Your task to perform on an android device: open app "DuckDuckGo Privacy Browser" (install if not already installed) and go to login screen Image 0: 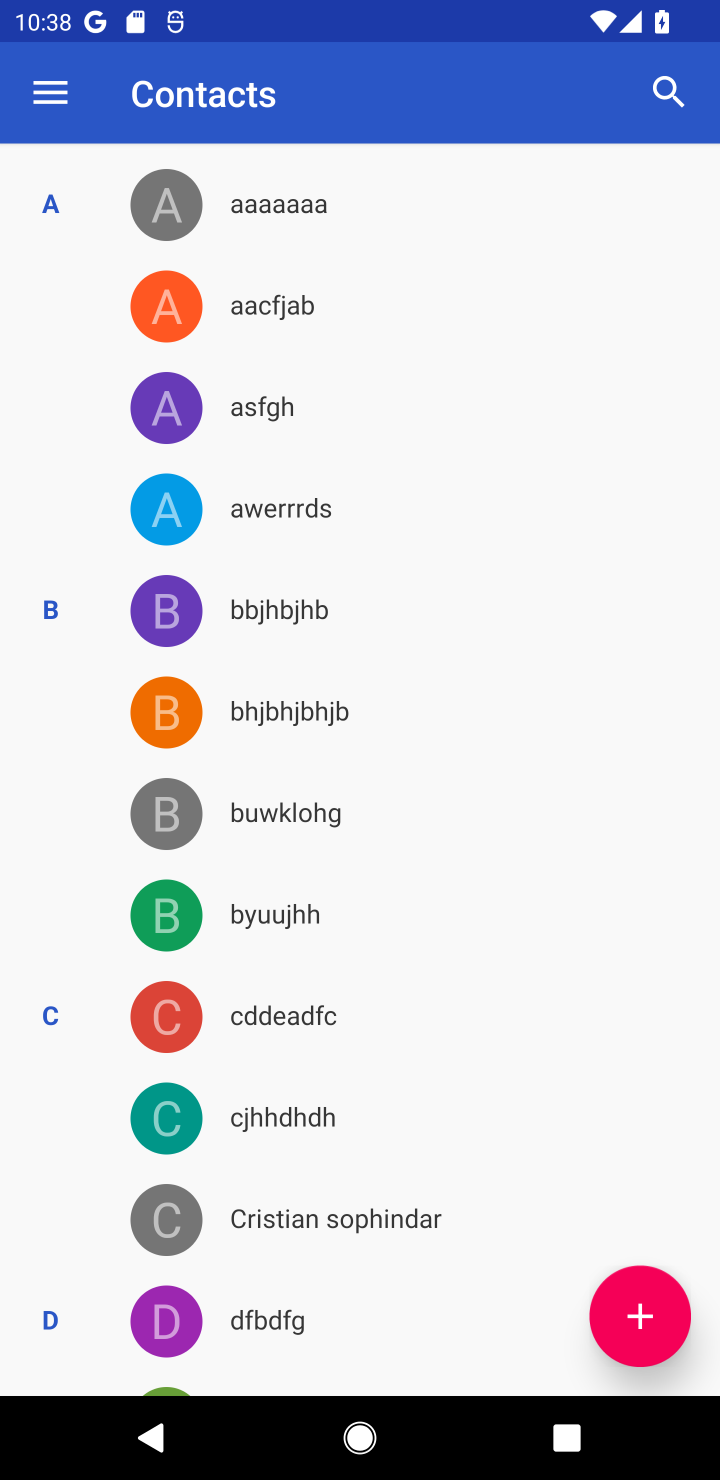
Step 0: press back button
Your task to perform on an android device: open app "DuckDuckGo Privacy Browser" (install if not already installed) and go to login screen Image 1: 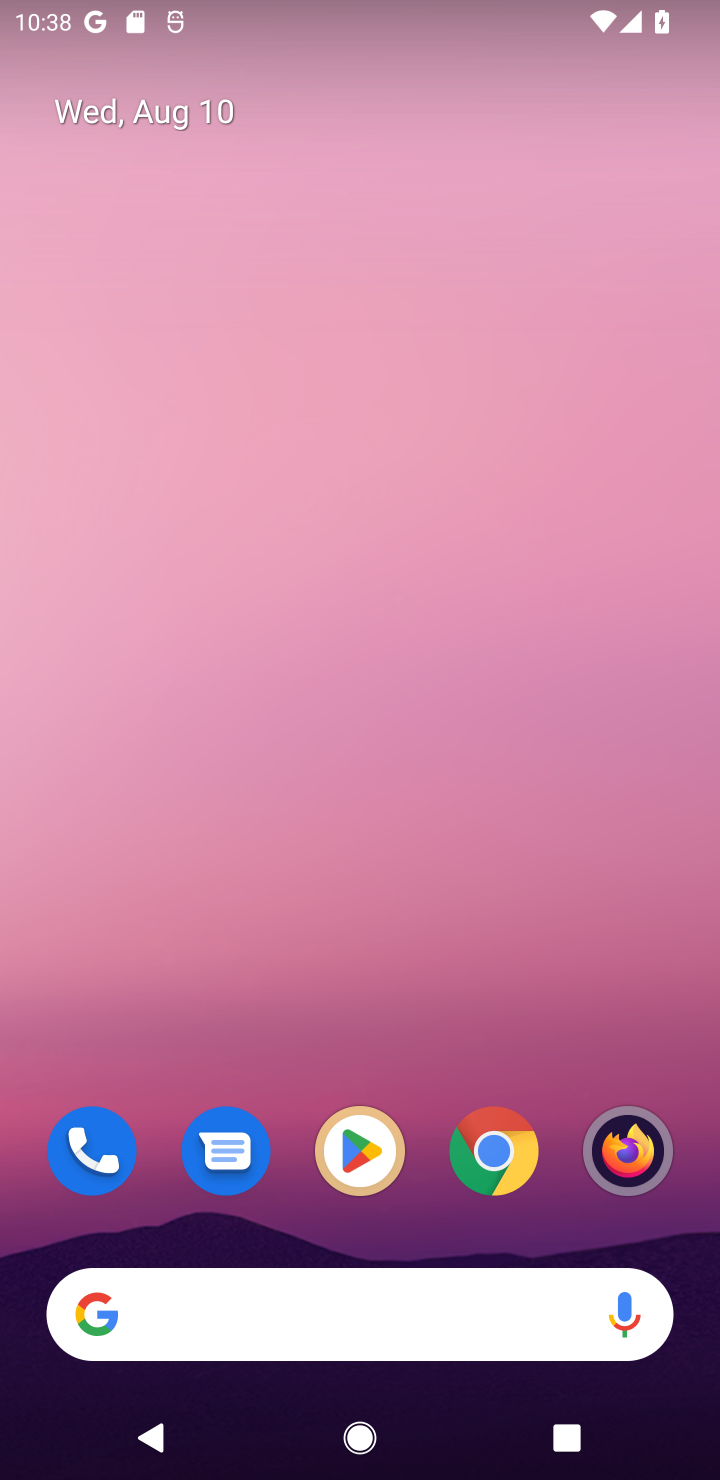
Step 1: click (374, 1154)
Your task to perform on an android device: open app "DuckDuckGo Privacy Browser" (install if not already installed) and go to login screen Image 2: 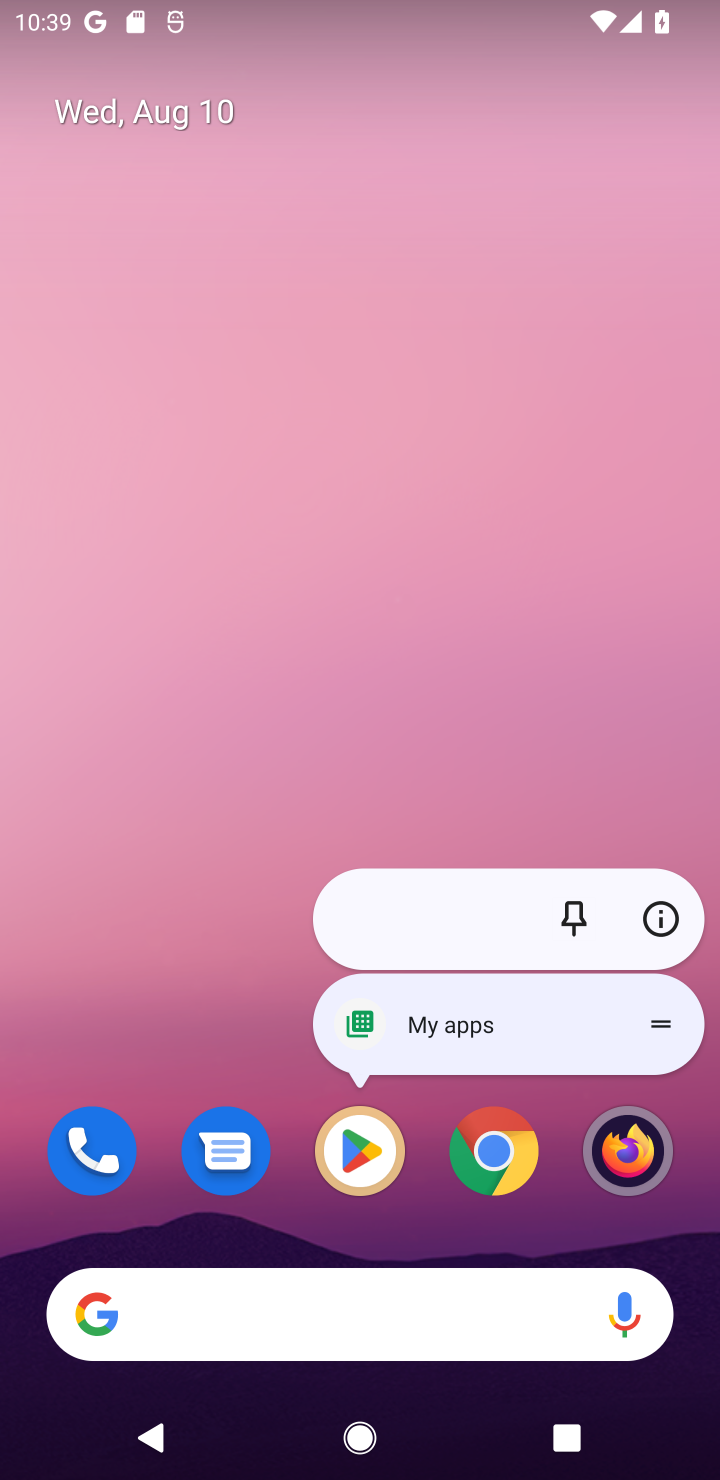
Step 2: click (363, 1118)
Your task to perform on an android device: open app "DuckDuckGo Privacy Browser" (install if not already installed) and go to login screen Image 3: 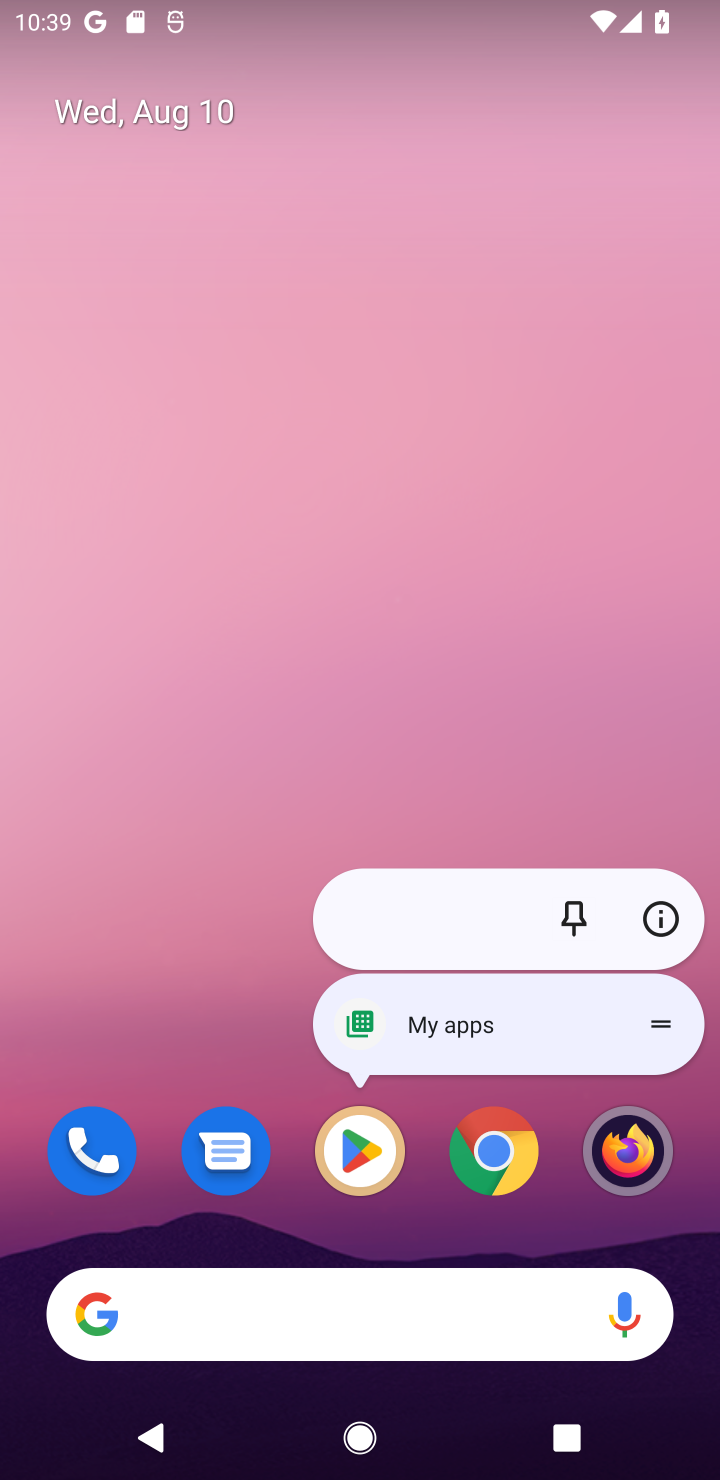
Step 3: click (373, 1157)
Your task to perform on an android device: open app "DuckDuckGo Privacy Browser" (install if not already installed) and go to login screen Image 4: 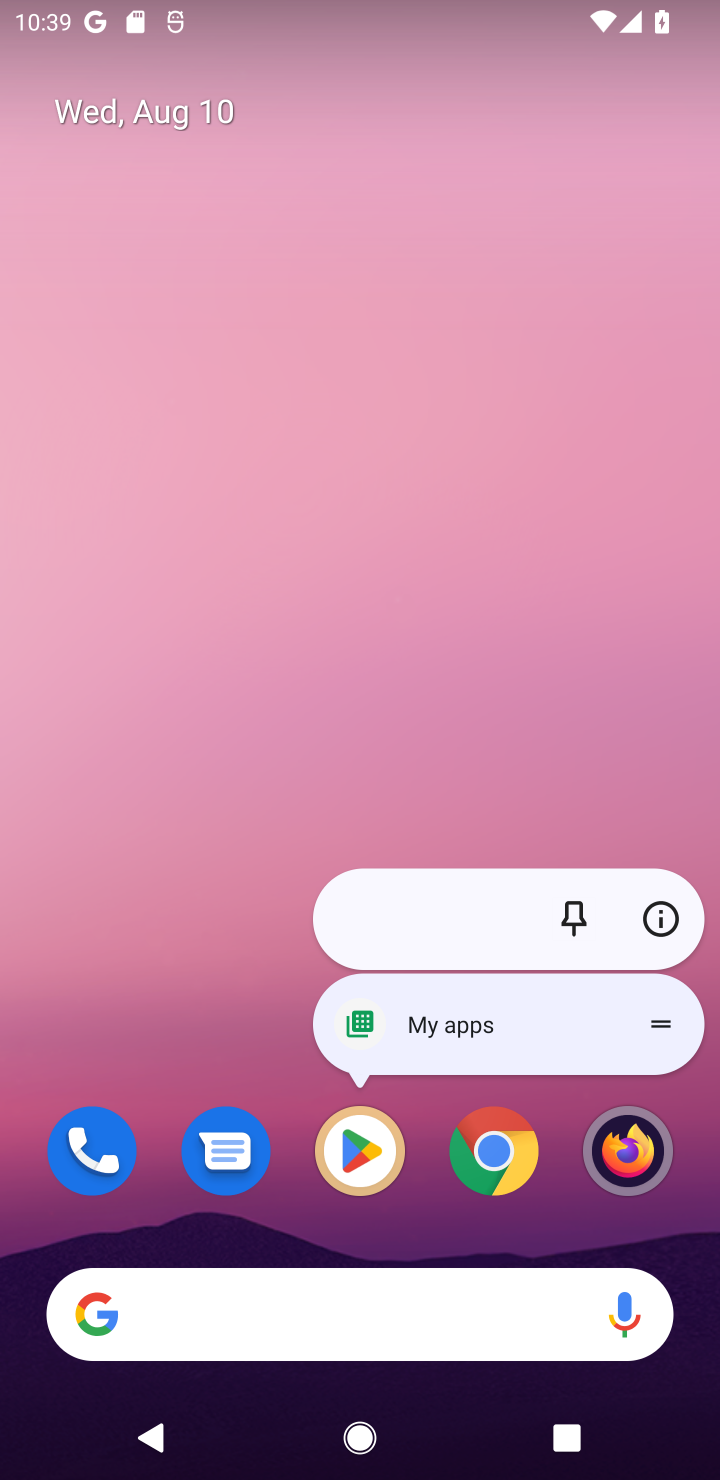
Step 4: click (365, 1166)
Your task to perform on an android device: open app "DuckDuckGo Privacy Browser" (install if not already installed) and go to login screen Image 5: 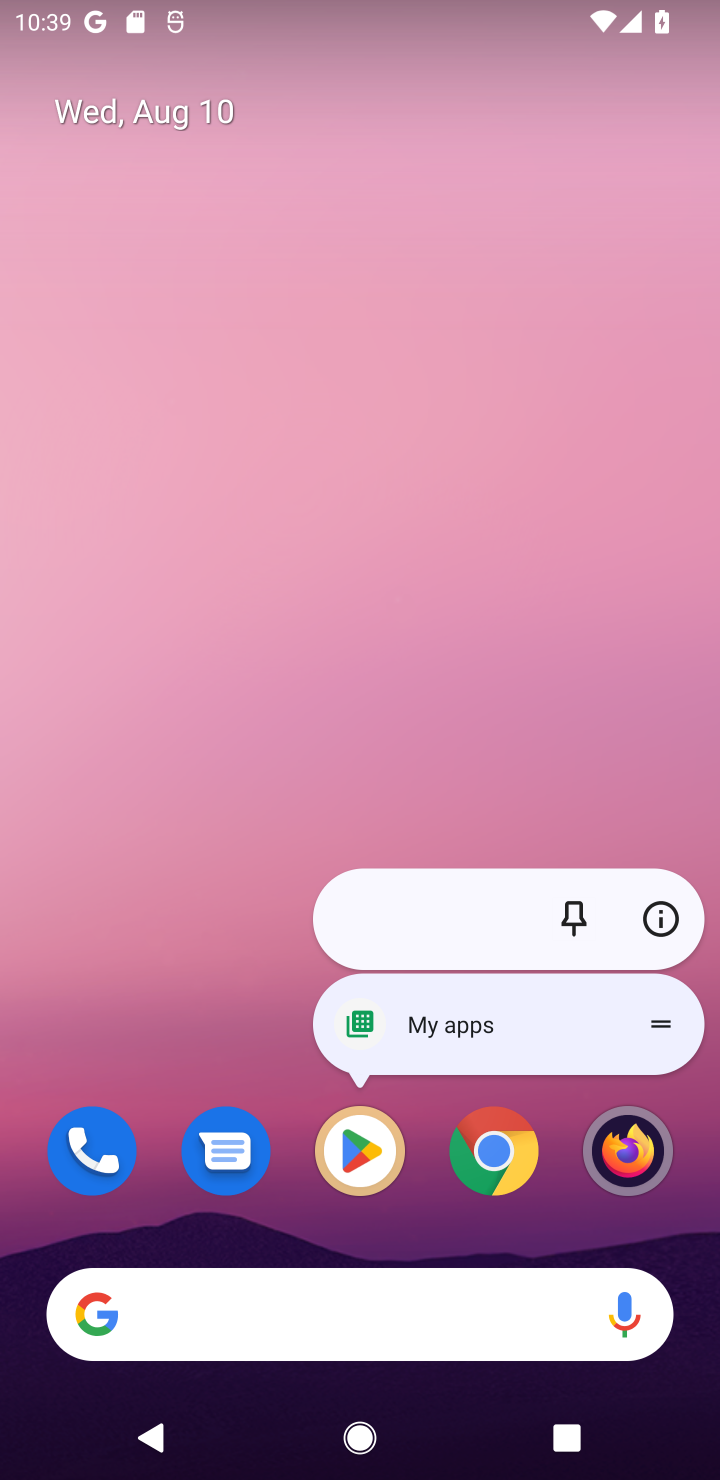
Step 5: click (362, 1156)
Your task to perform on an android device: open app "DuckDuckGo Privacy Browser" (install if not already installed) and go to login screen Image 6: 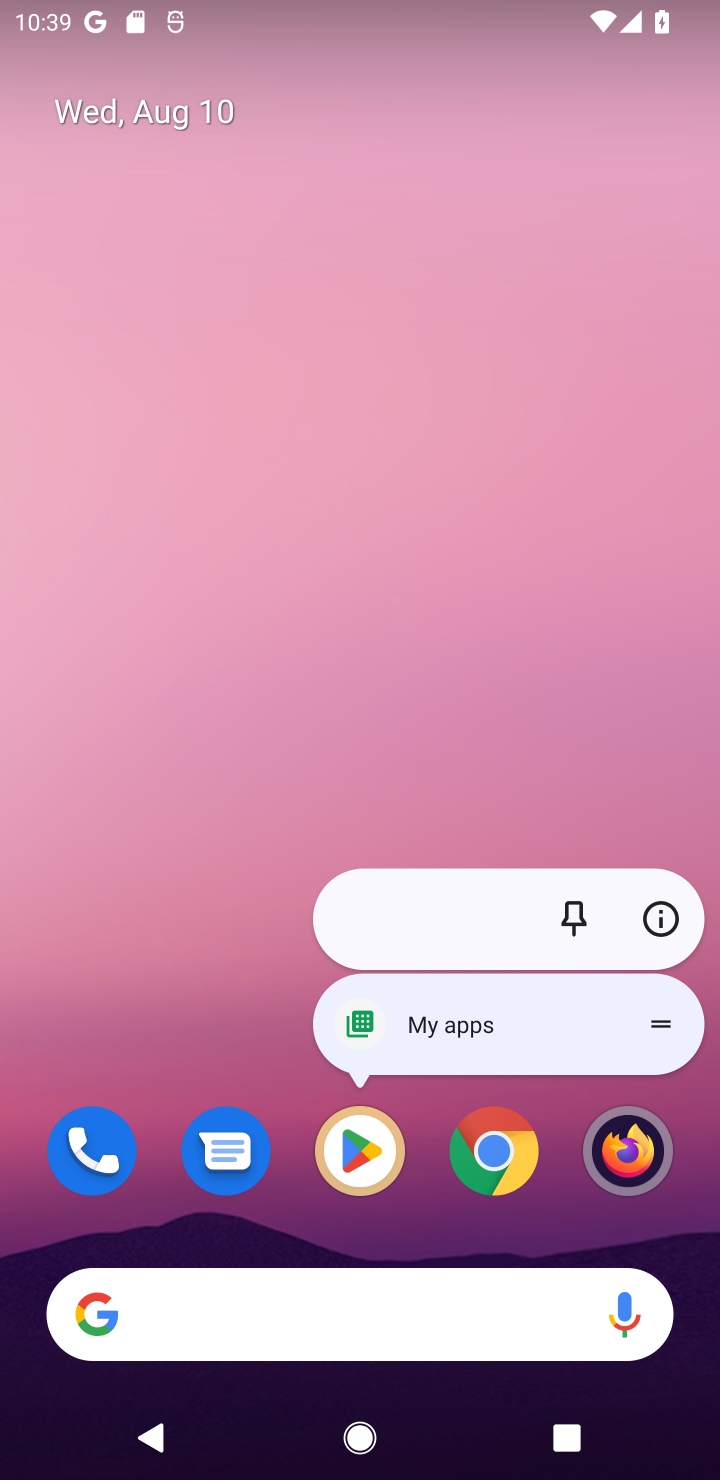
Step 6: click (362, 1148)
Your task to perform on an android device: open app "DuckDuckGo Privacy Browser" (install if not already installed) and go to login screen Image 7: 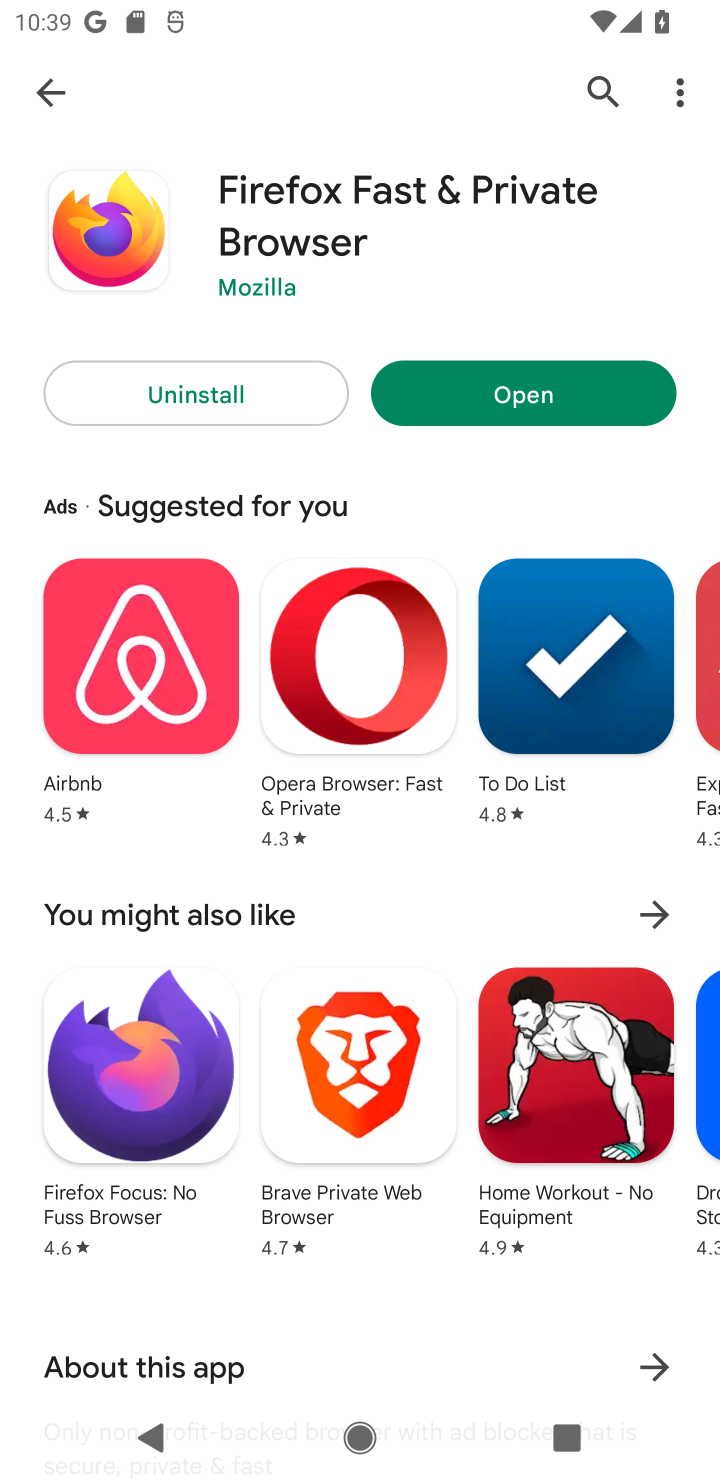
Step 7: click (606, 79)
Your task to perform on an android device: open app "DuckDuckGo Privacy Browser" (install if not already installed) and go to login screen Image 8: 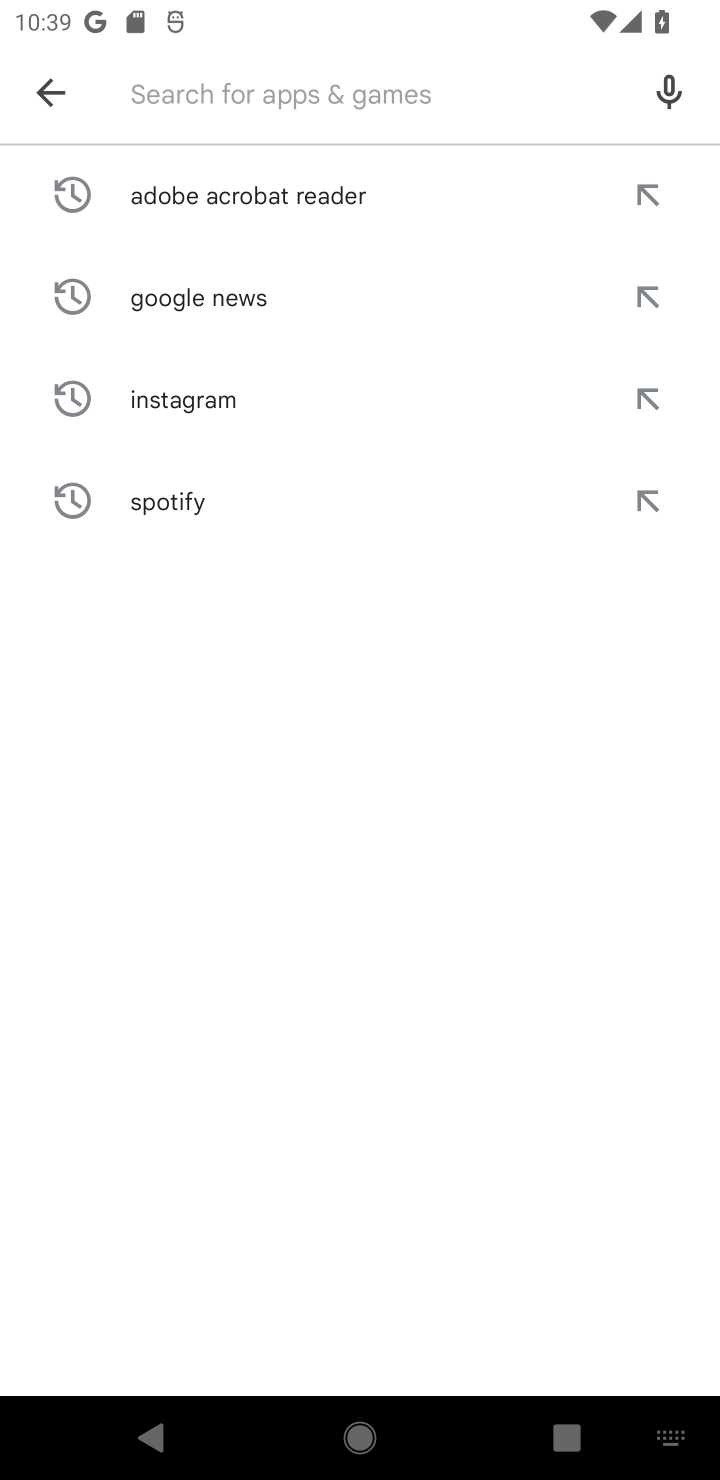
Step 8: click (256, 104)
Your task to perform on an android device: open app "DuckDuckGo Privacy Browser" (install if not already installed) and go to login screen Image 9: 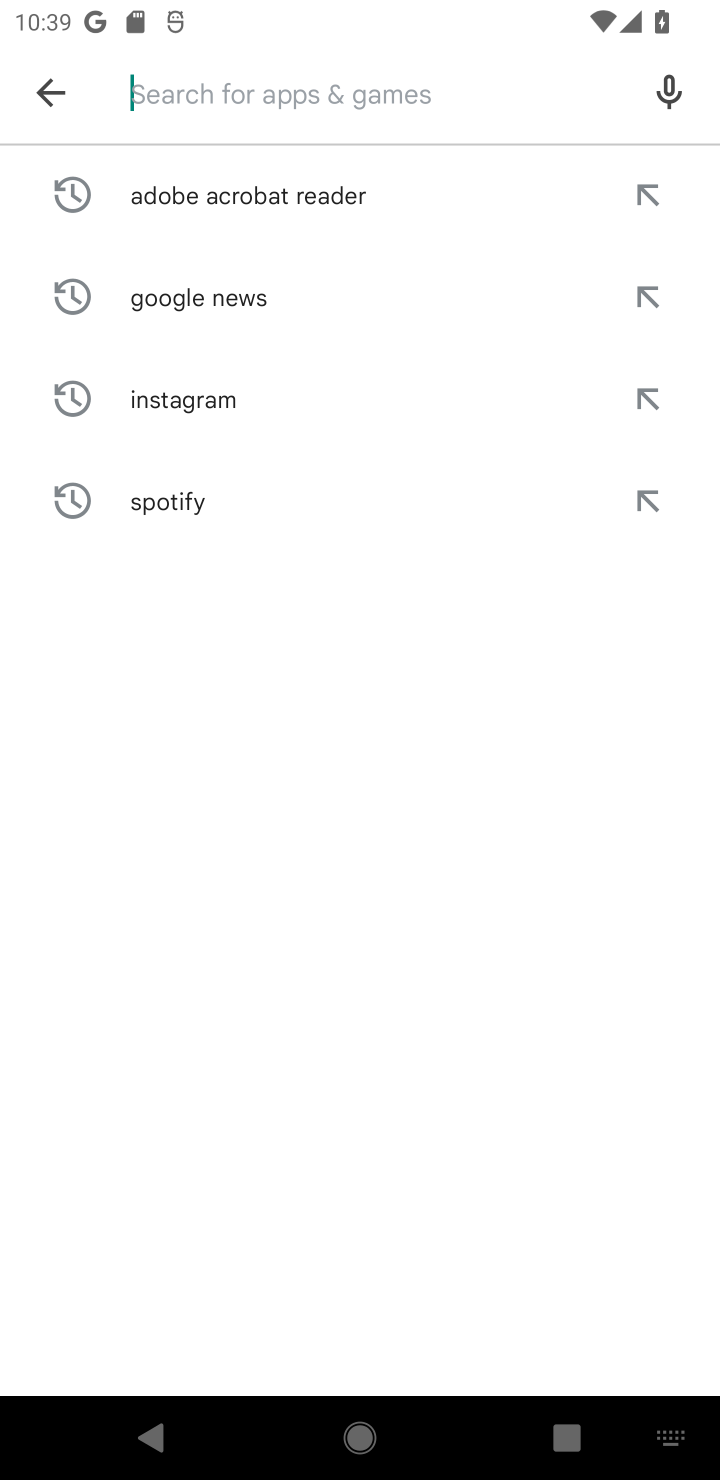
Step 9: type "DuckDuckGo Privacy Browse"
Your task to perform on an android device: open app "DuckDuckGo Privacy Browser" (install if not already installed) and go to login screen Image 10: 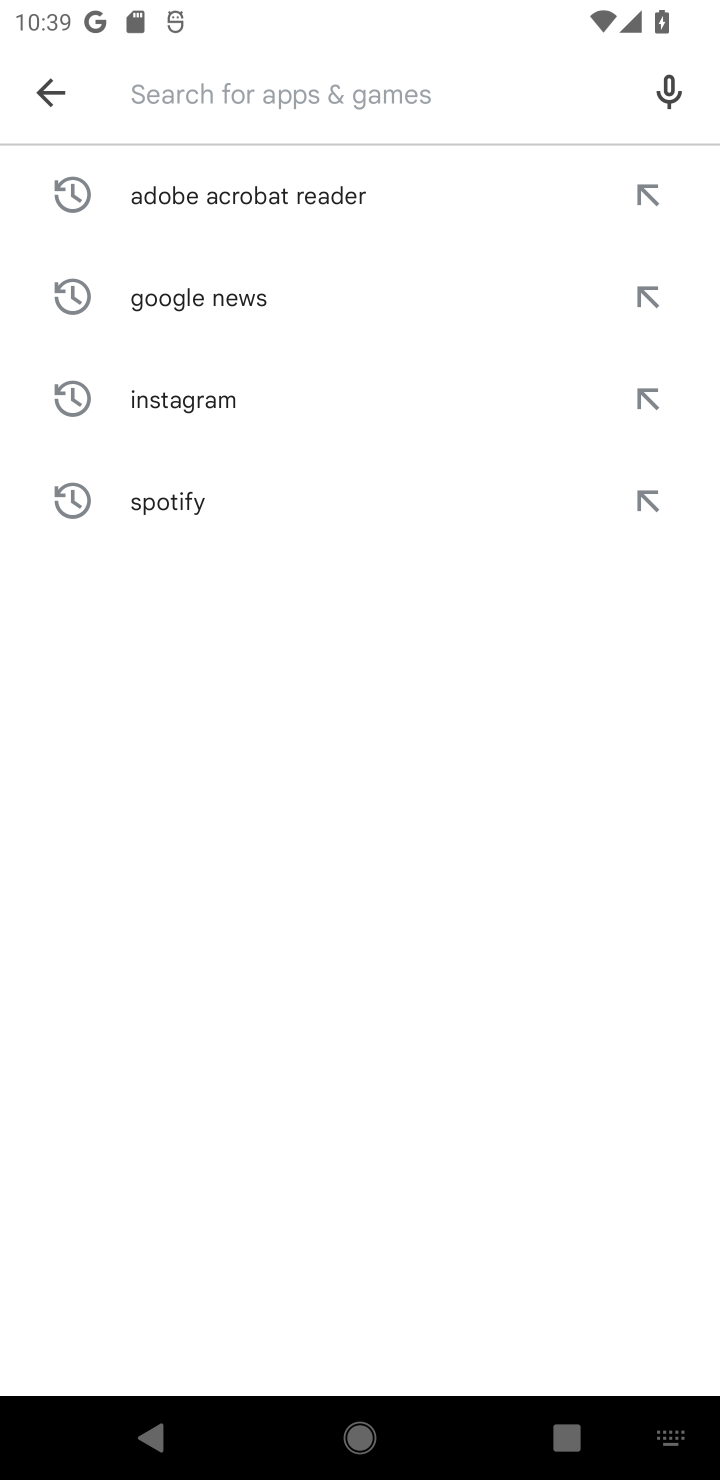
Step 10: click (346, 836)
Your task to perform on an android device: open app "DuckDuckGo Privacy Browser" (install if not already installed) and go to login screen Image 11: 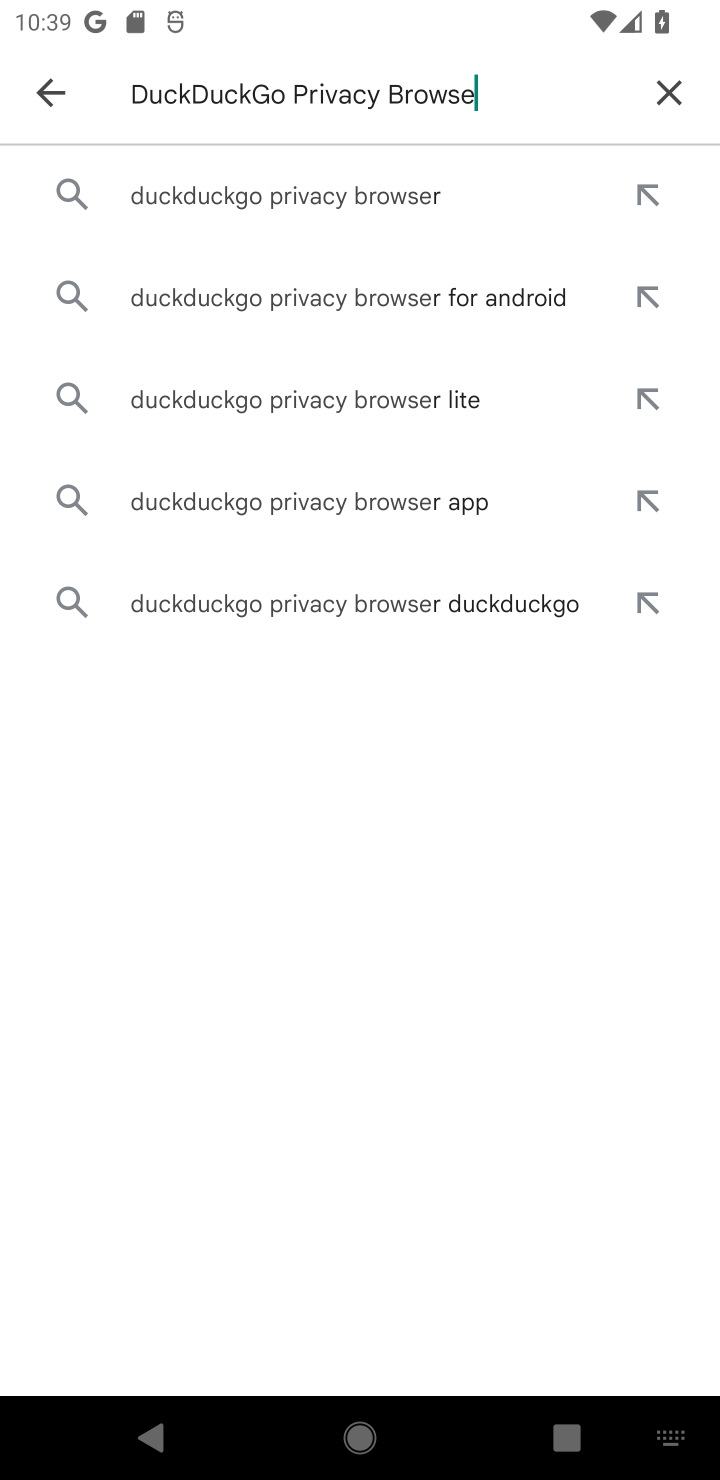
Step 11: click (362, 179)
Your task to perform on an android device: open app "DuckDuckGo Privacy Browser" (install if not already installed) and go to login screen Image 12: 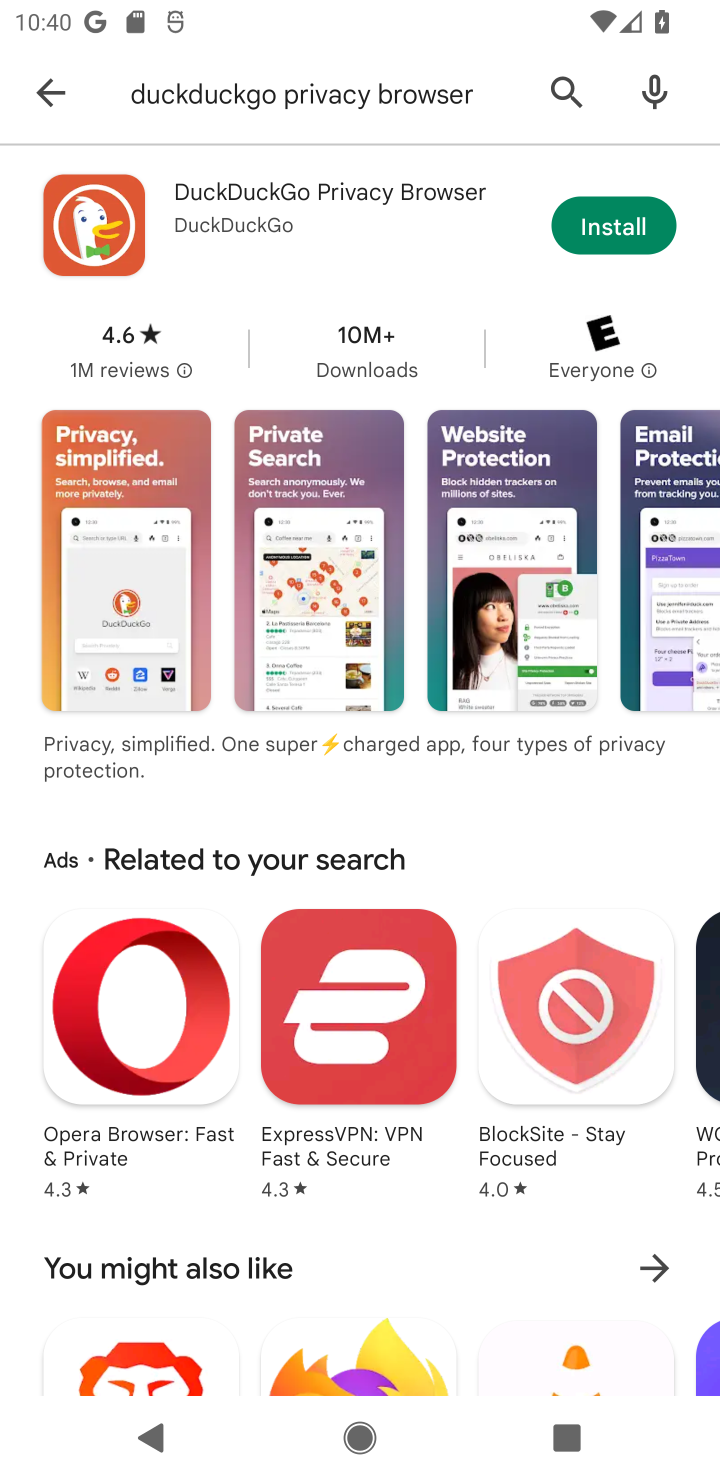
Step 12: click (587, 217)
Your task to perform on an android device: open app "DuckDuckGo Privacy Browser" (install if not already installed) and go to login screen Image 13: 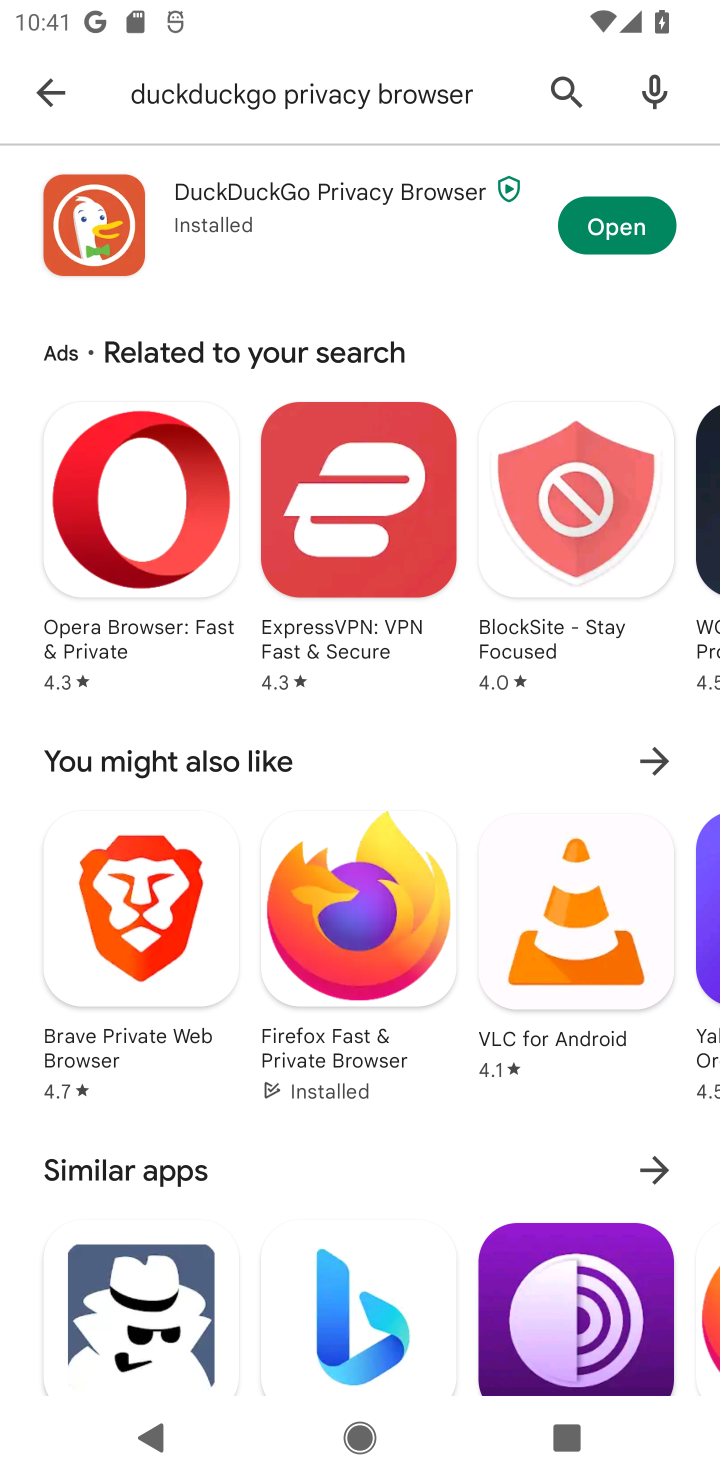
Step 13: click (666, 222)
Your task to perform on an android device: open app "DuckDuckGo Privacy Browser" (install if not already installed) and go to login screen Image 14: 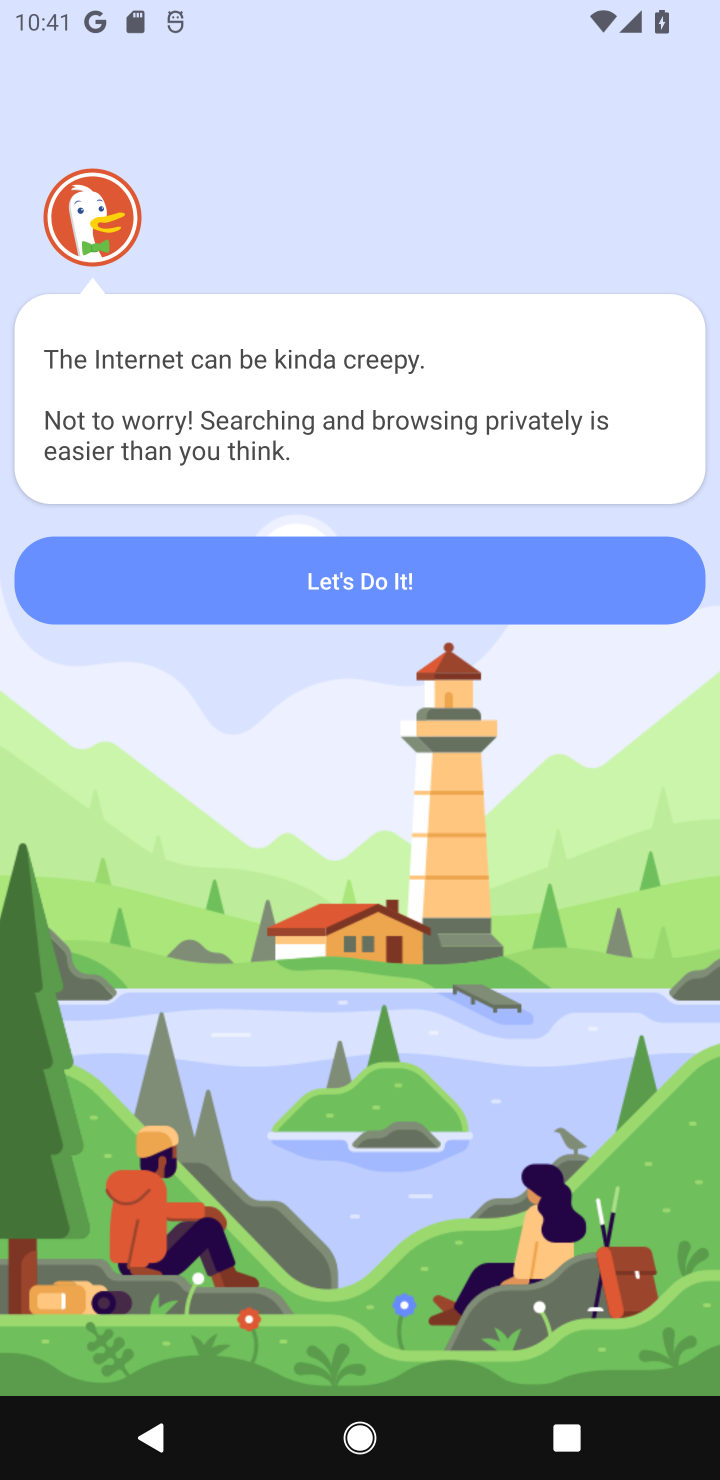
Step 14: click (332, 568)
Your task to perform on an android device: open app "DuckDuckGo Privacy Browser" (install if not already installed) and go to login screen Image 15: 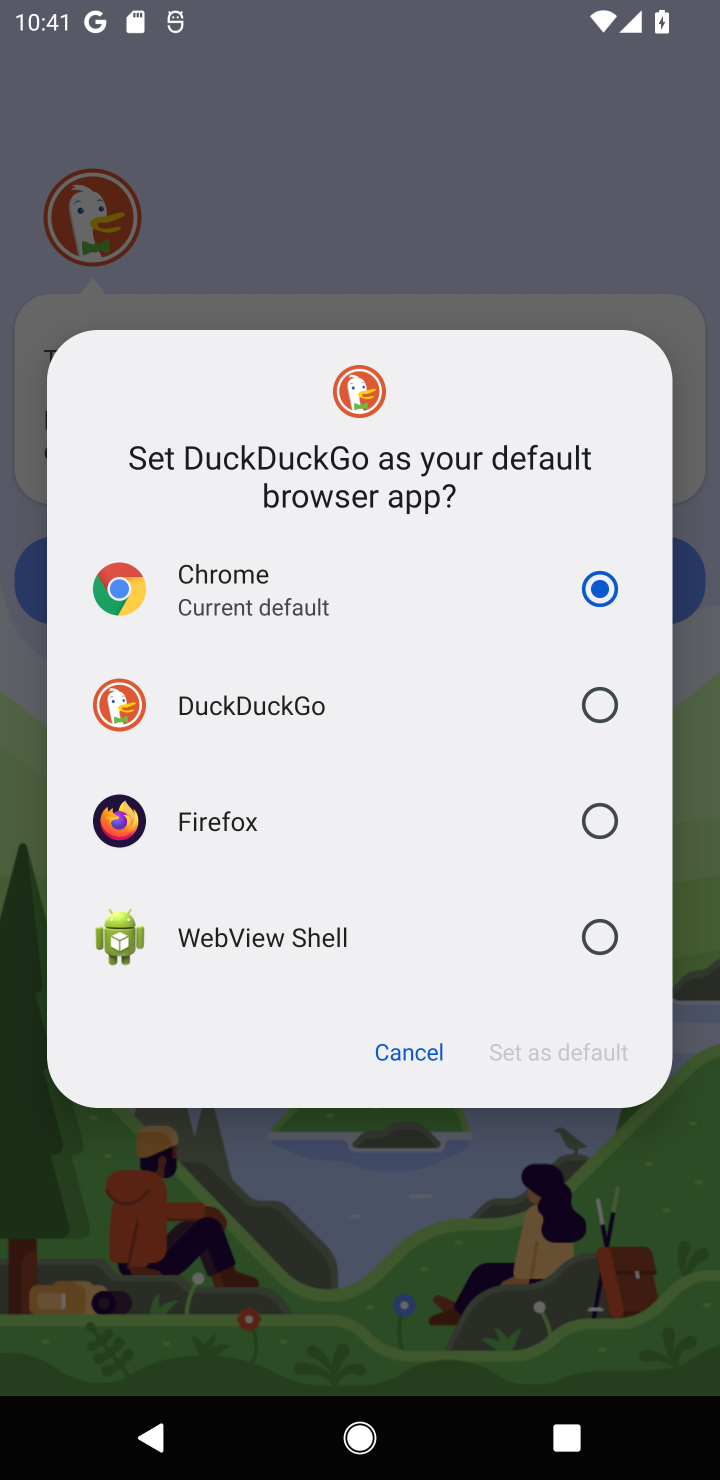
Step 15: click (330, 708)
Your task to perform on an android device: open app "DuckDuckGo Privacy Browser" (install if not already installed) and go to login screen Image 16: 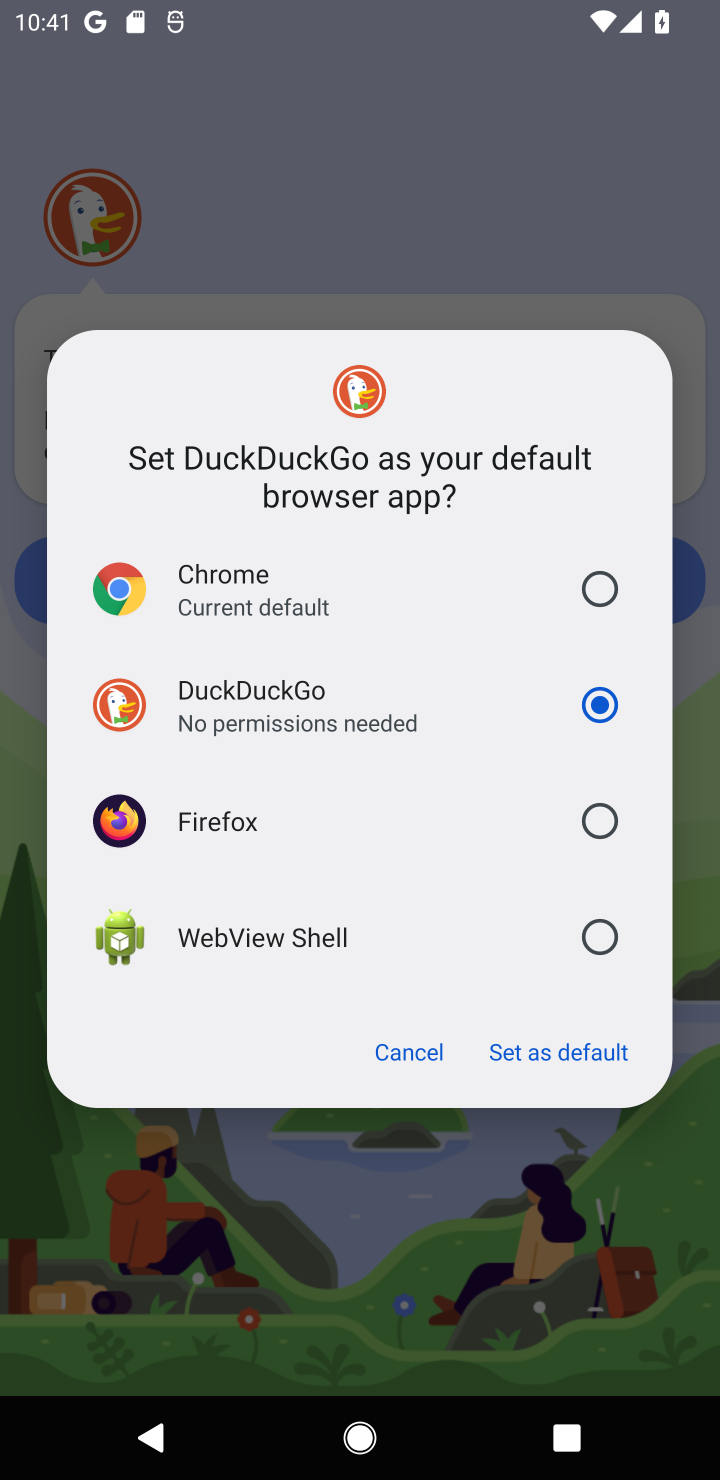
Step 16: click (554, 1038)
Your task to perform on an android device: open app "DuckDuckGo Privacy Browser" (install if not already installed) and go to login screen Image 17: 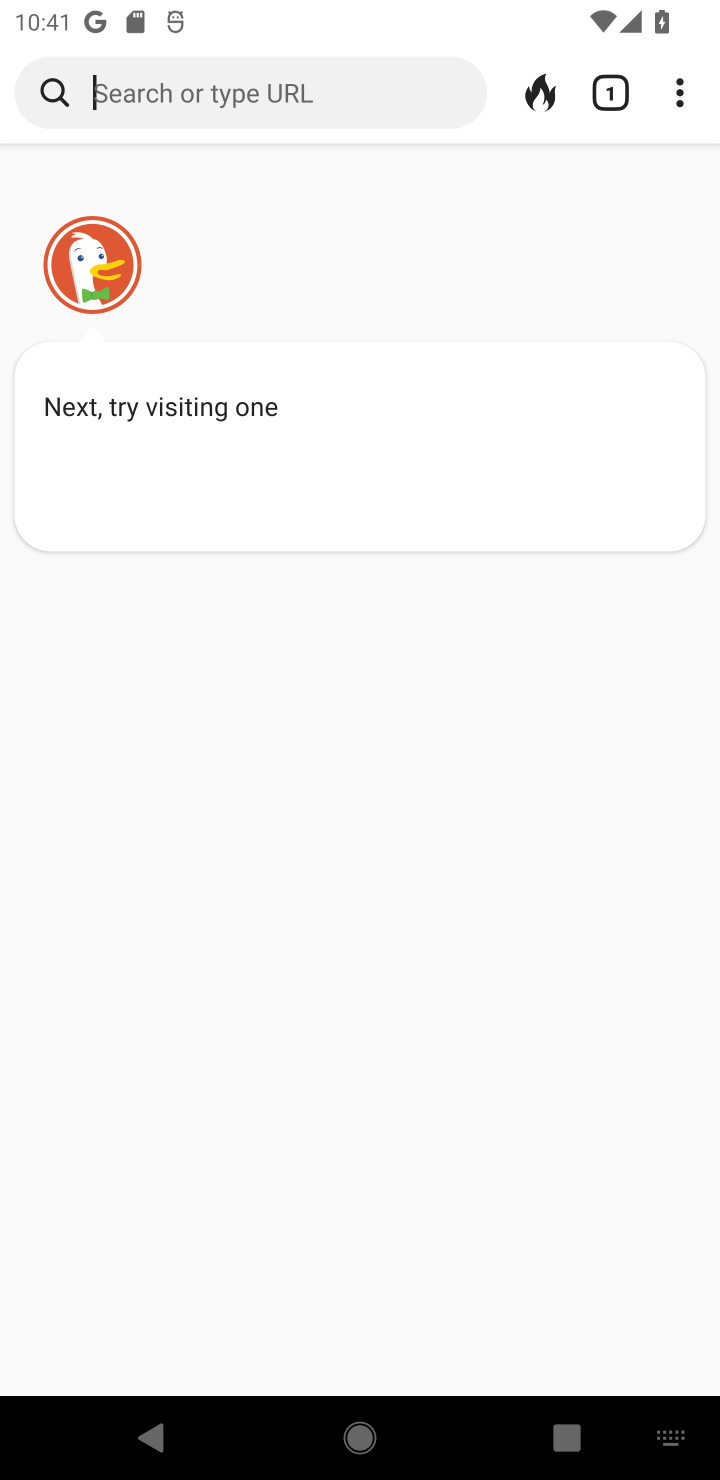
Step 17: task complete